Your task to perform on an android device: remove spam from my inbox in the gmail app Image 0: 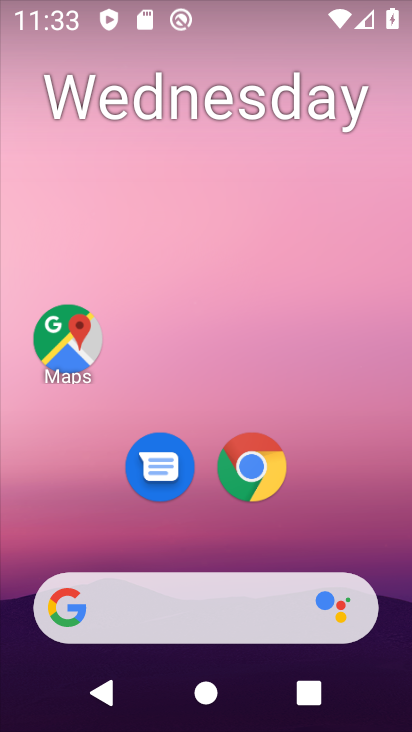
Step 0: drag from (205, 602) to (303, 168)
Your task to perform on an android device: remove spam from my inbox in the gmail app Image 1: 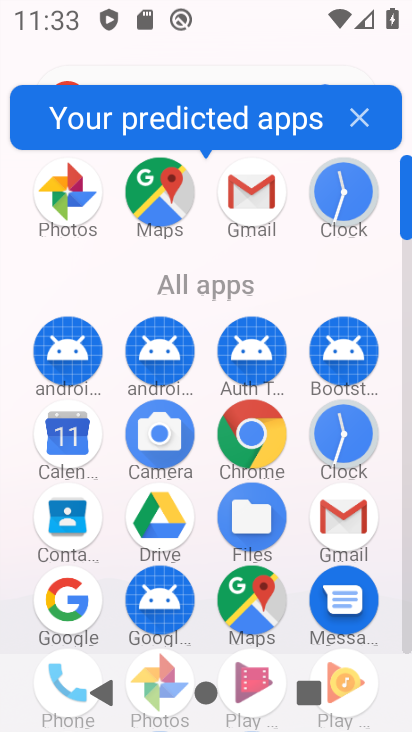
Step 1: click (259, 206)
Your task to perform on an android device: remove spam from my inbox in the gmail app Image 2: 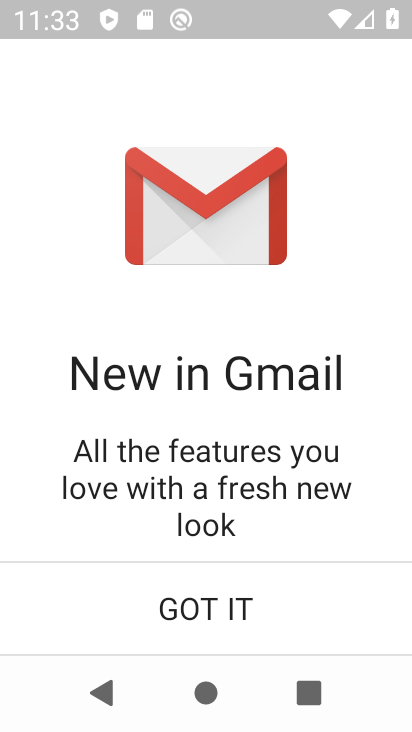
Step 2: click (208, 620)
Your task to perform on an android device: remove spam from my inbox in the gmail app Image 3: 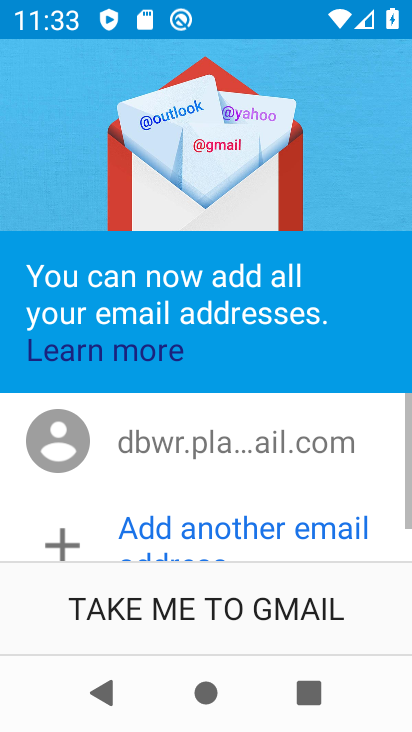
Step 3: click (208, 622)
Your task to perform on an android device: remove spam from my inbox in the gmail app Image 4: 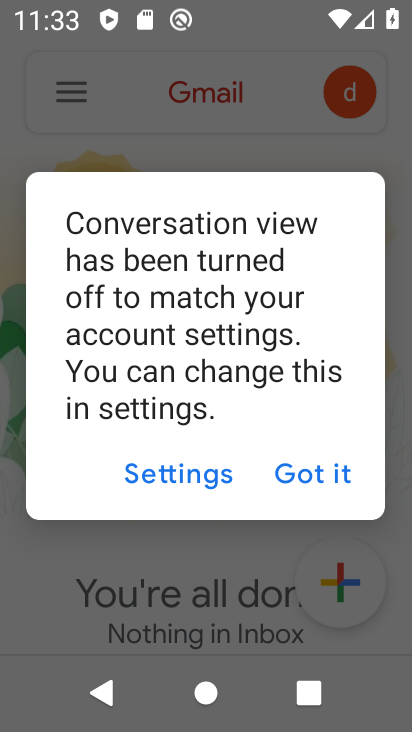
Step 4: click (306, 477)
Your task to perform on an android device: remove spam from my inbox in the gmail app Image 5: 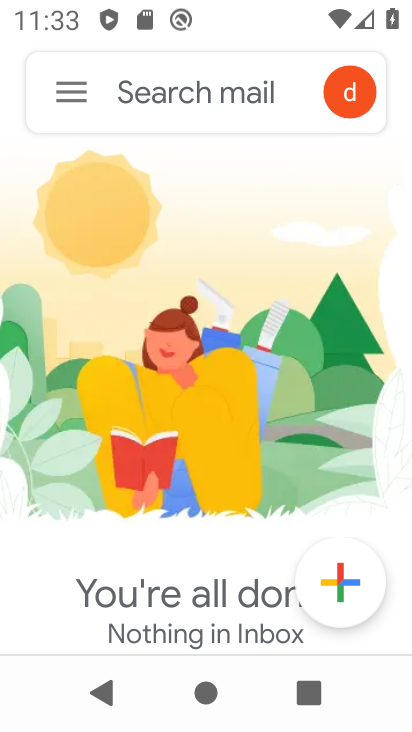
Step 5: click (62, 90)
Your task to perform on an android device: remove spam from my inbox in the gmail app Image 6: 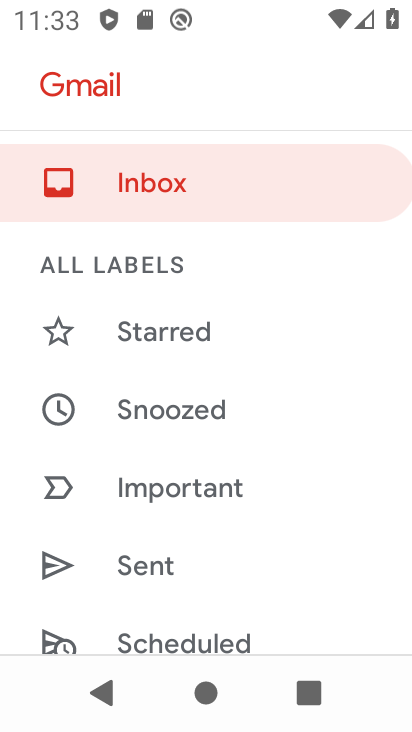
Step 6: drag from (248, 602) to (320, 165)
Your task to perform on an android device: remove spam from my inbox in the gmail app Image 7: 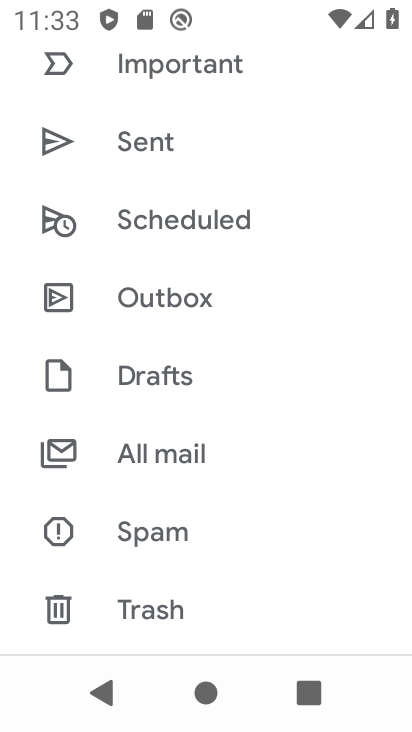
Step 7: click (182, 539)
Your task to perform on an android device: remove spam from my inbox in the gmail app Image 8: 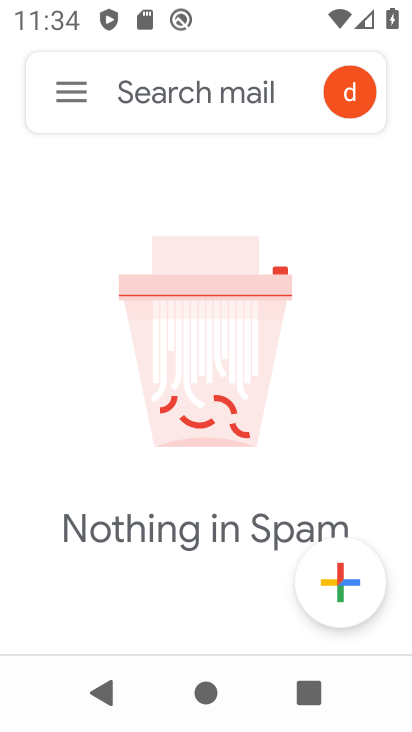
Step 8: task complete